Your task to perform on an android device: toggle data saver in the chrome app Image 0: 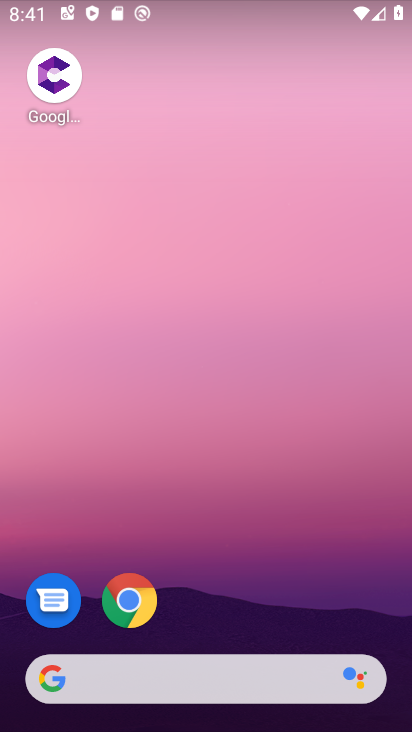
Step 0: click (134, 605)
Your task to perform on an android device: toggle data saver in the chrome app Image 1: 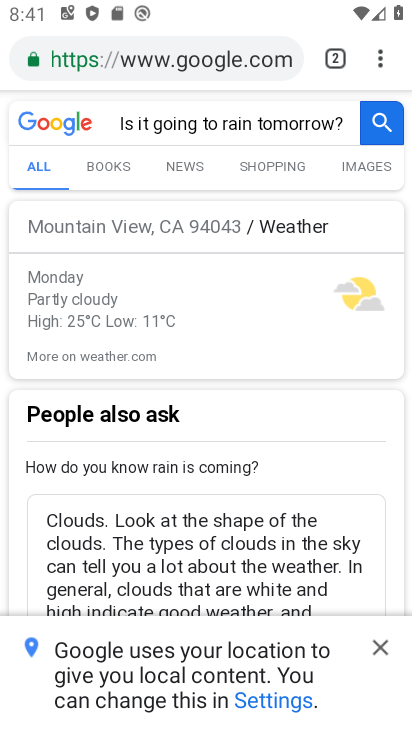
Step 1: click (384, 56)
Your task to perform on an android device: toggle data saver in the chrome app Image 2: 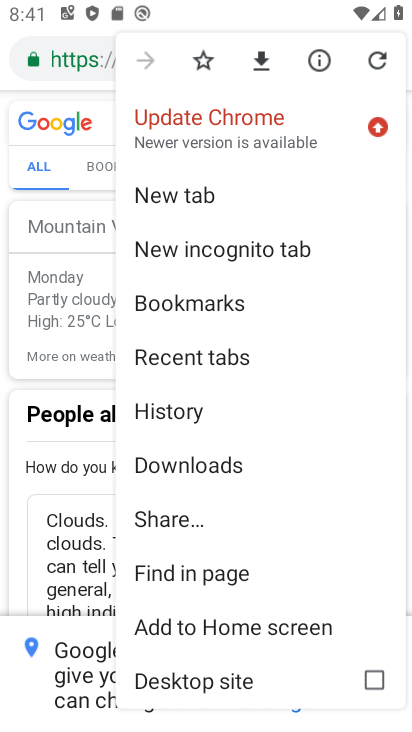
Step 2: drag from (281, 519) to (288, 226)
Your task to perform on an android device: toggle data saver in the chrome app Image 3: 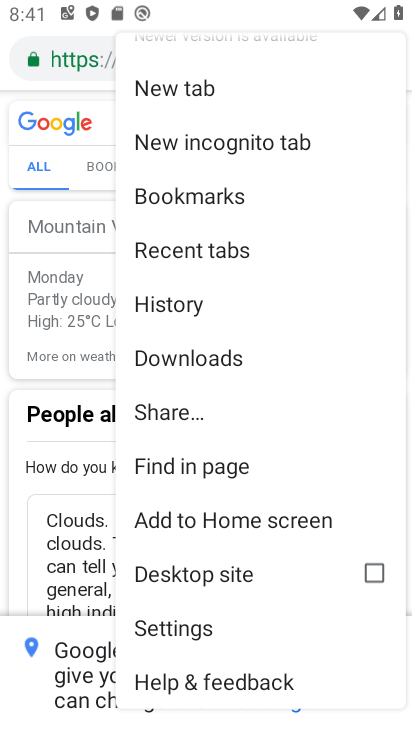
Step 3: click (191, 616)
Your task to perform on an android device: toggle data saver in the chrome app Image 4: 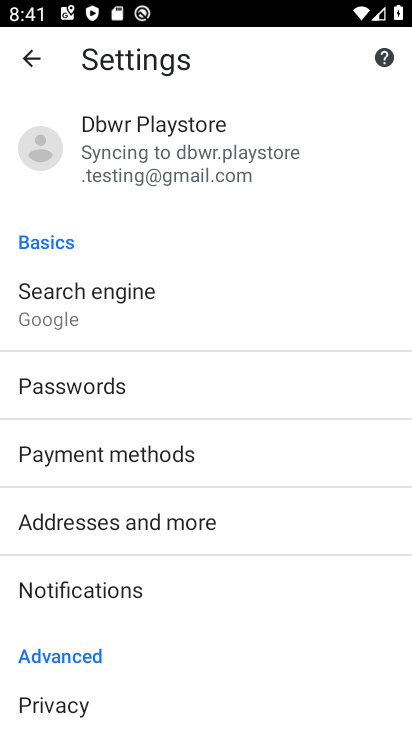
Step 4: drag from (211, 623) to (256, 110)
Your task to perform on an android device: toggle data saver in the chrome app Image 5: 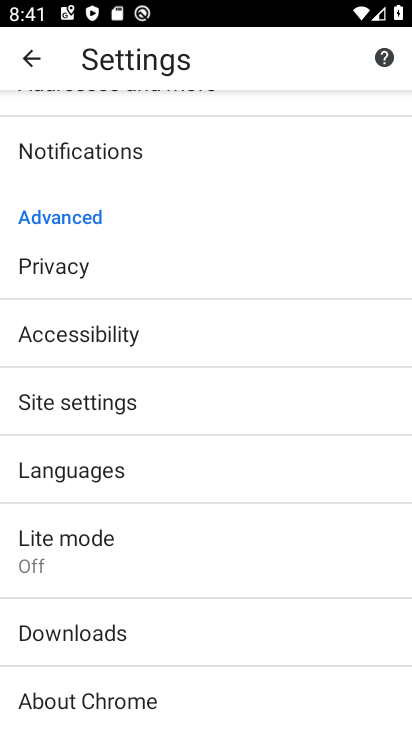
Step 5: drag from (245, 563) to (295, 374)
Your task to perform on an android device: toggle data saver in the chrome app Image 6: 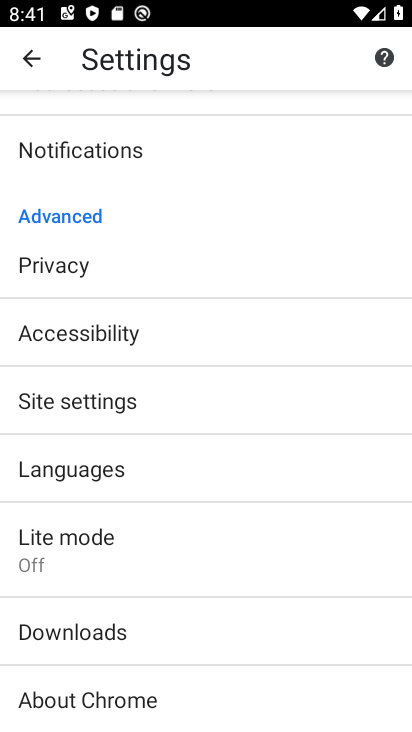
Step 6: click (281, 382)
Your task to perform on an android device: toggle data saver in the chrome app Image 7: 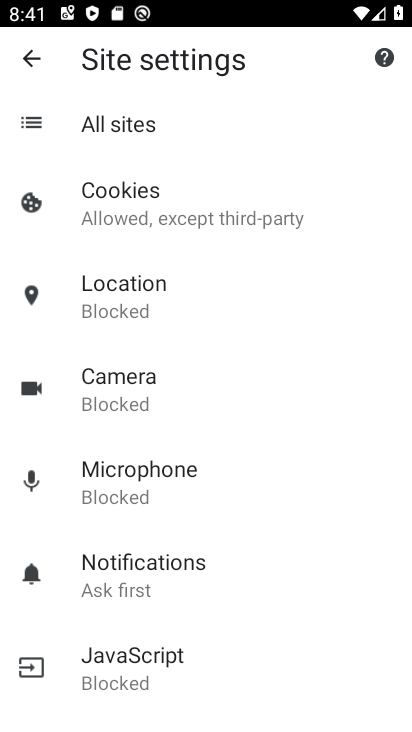
Step 7: click (34, 51)
Your task to perform on an android device: toggle data saver in the chrome app Image 8: 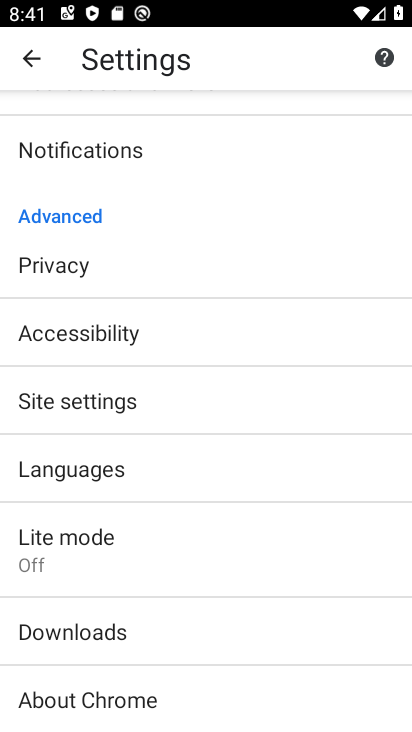
Step 8: click (184, 558)
Your task to perform on an android device: toggle data saver in the chrome app Image 9: 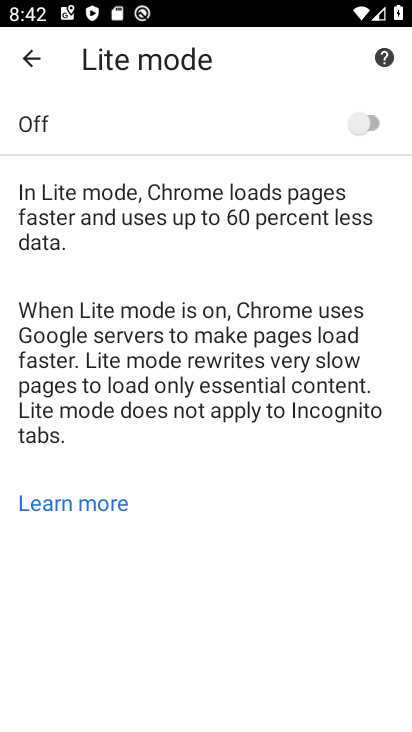
Step 9: click (357, 119)
Your task to perform on an android device: toggle data saver in the chrome app Image 10: 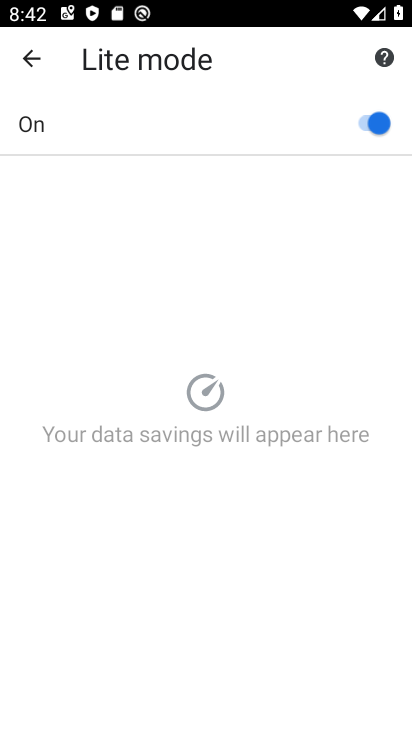
Step 10: task complete